Your task to perform on an android device: Check the news Image 0: 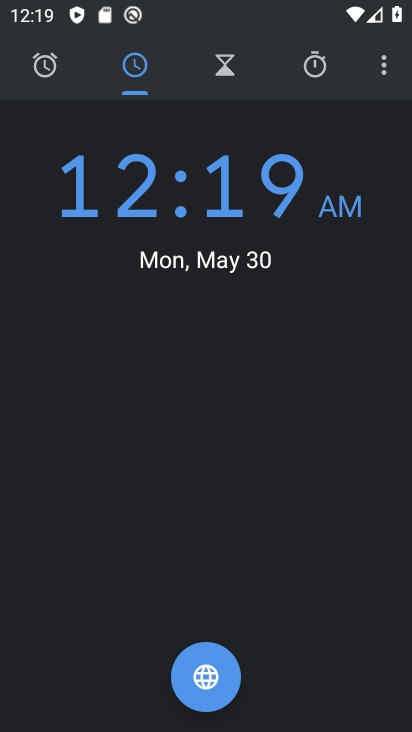
Step 0: press home button
Your task to perform on an android device: Check the news Image 1: 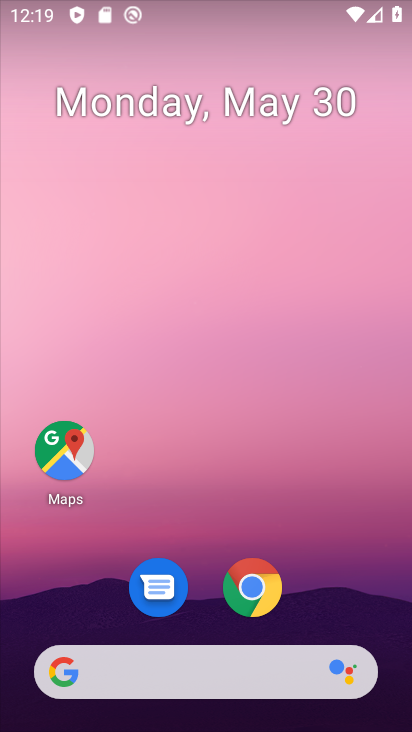
Step 1: drag from (319, 589) to (278, 117)
Your task to perform on an android device: Check the news Image 2: 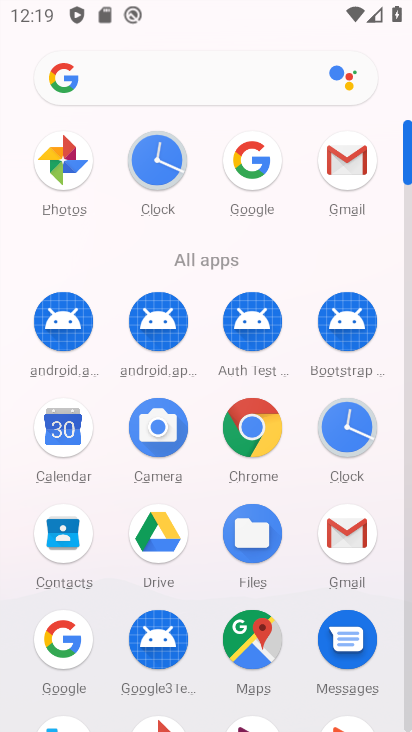
Step 2: click (245, 167)
Your task to perform on an android device: Check the news Image 3: 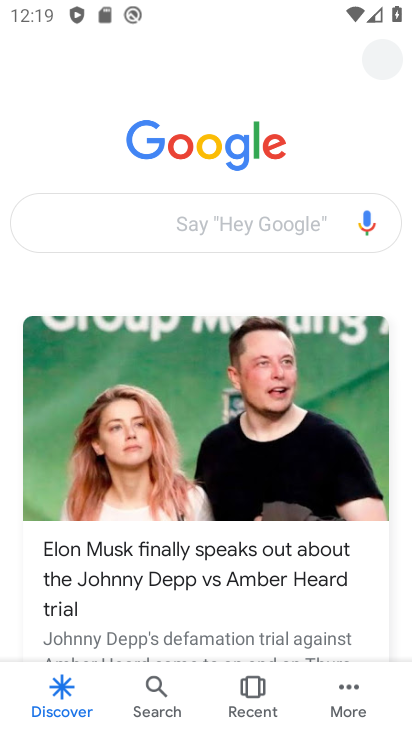
Step 3: click (183, 236)
Your task to perform on an android device: Check the news Image 4: 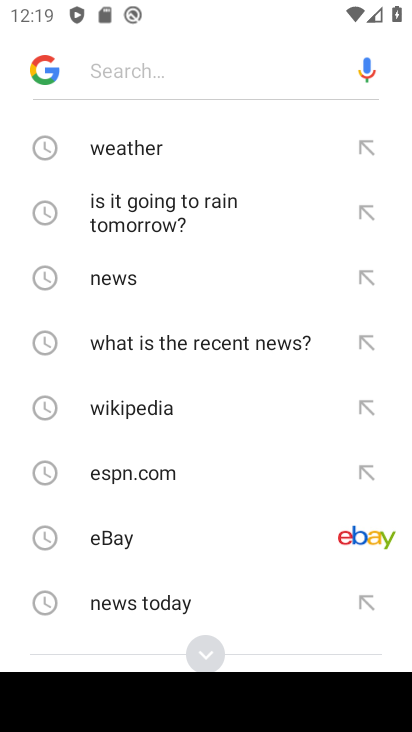
Step 4: click (126, 269)
Your task to perform on an android device: Check the news Image 5: 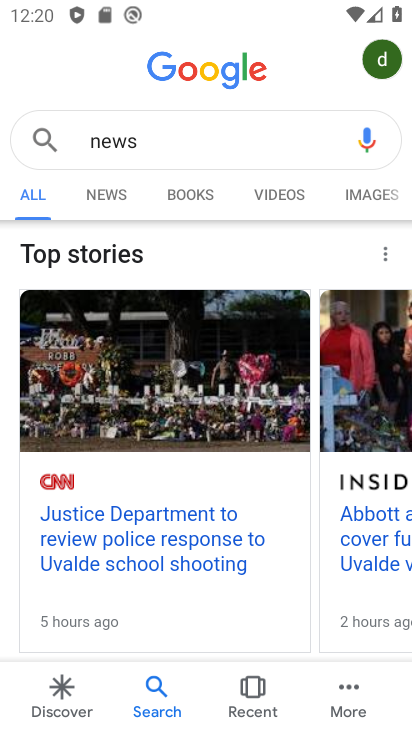
Step 5: task complete